Your task to perform on an android device: Open Reddit.com Image 0: 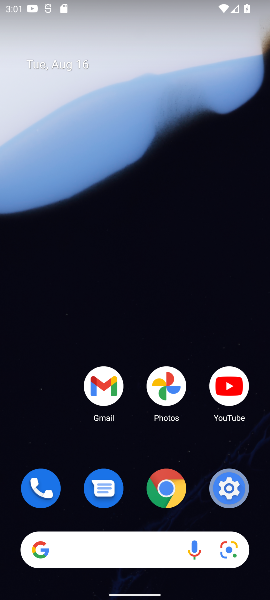
Step 0: click (159, 542)
Your task to perform on an android device: Open Reddit.com Image 1: 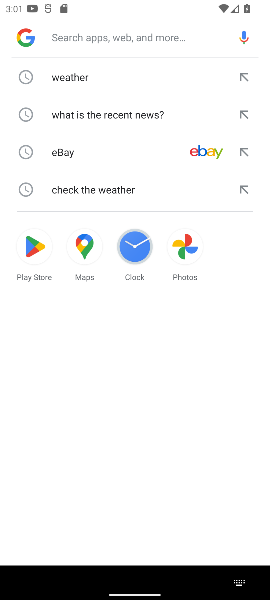
Step 1: press enter
Your task to perform on an android device: Open Reddit.com Image 2: 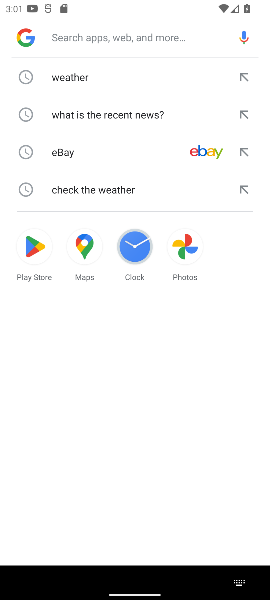
Step 2: type " Reddit.com"
Your task to perform on an android device: Open Reddit.com Image 3: 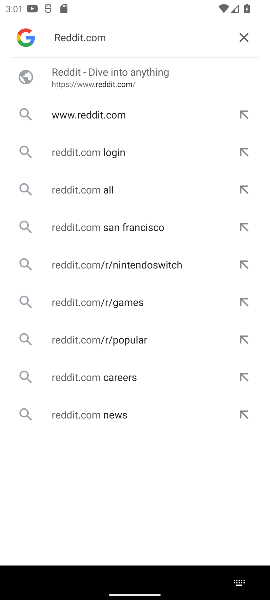
Step 3: task complete